Your task to perform on an android device: turn off data saver in the chrome app Image 0: 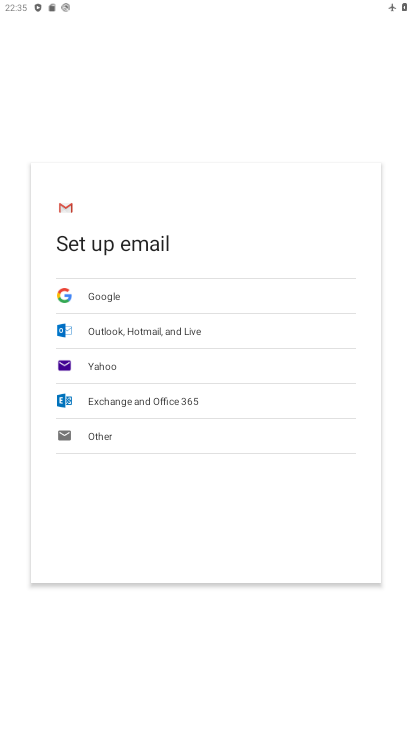
Step 0: press home button
Your task to perform on an android device: turn off data saver in the chrome app Image 1: 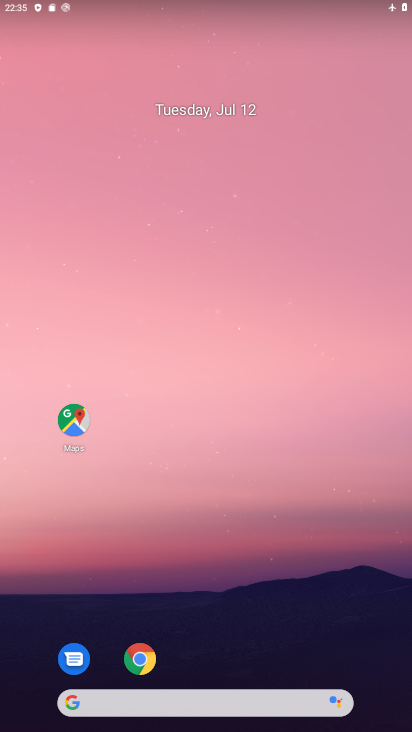
Step 1: drag from (330, 542) to (320, 86)
Your task to perform on an android device: turn off data saver in the chrome app Image 2: 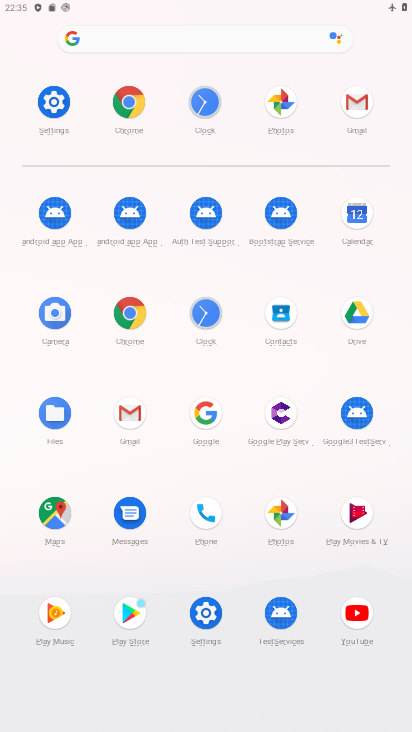
Step 2: click (120, 99)
Your task to perform on an android device: turn off data saver in the chrome app Image 3: 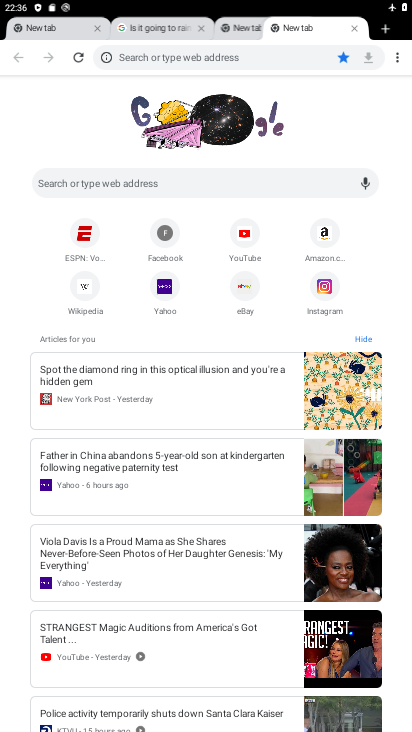
Step 3: click (408, 50)
Your task to perform on an android device: turn off data saver in the chrome app Image 4: 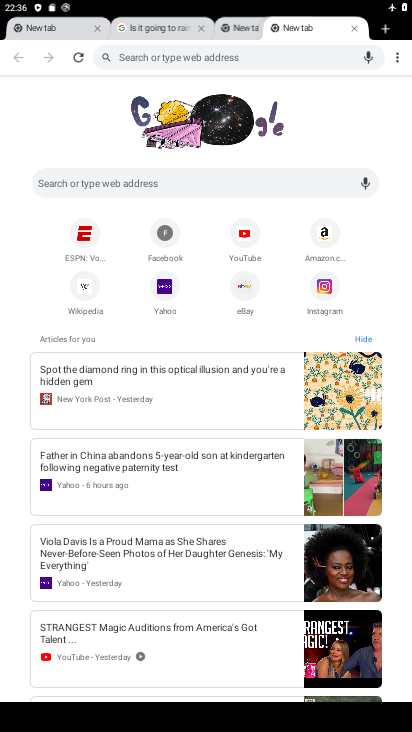
Step 4: click (394, 58)
Your task to perform on an android device: turn off data saver in the chrome app Image 5: 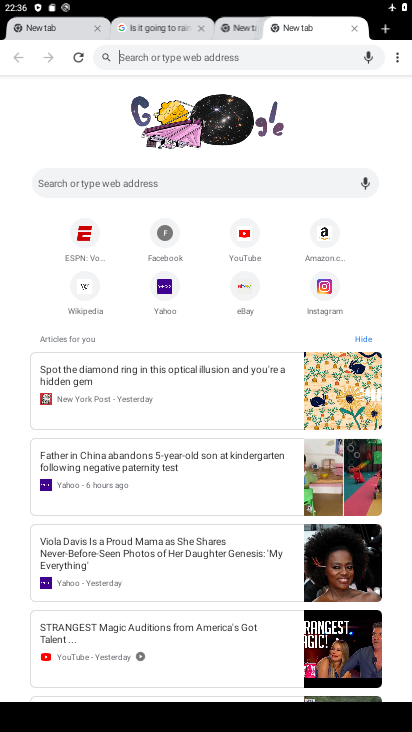
Step 5: click (399, 51)
Your task to perform on an android device: turn off data saver in the chrome app Image 6: 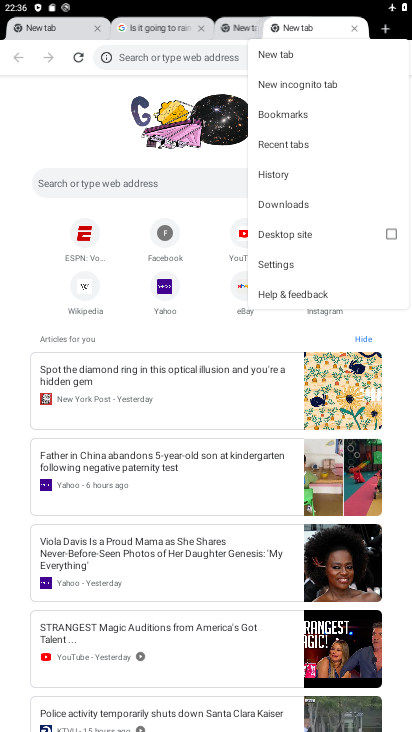
Step 6: click (286, 267)
Your task to perform on an android device: turn off data saver in the chrome app Image 7: 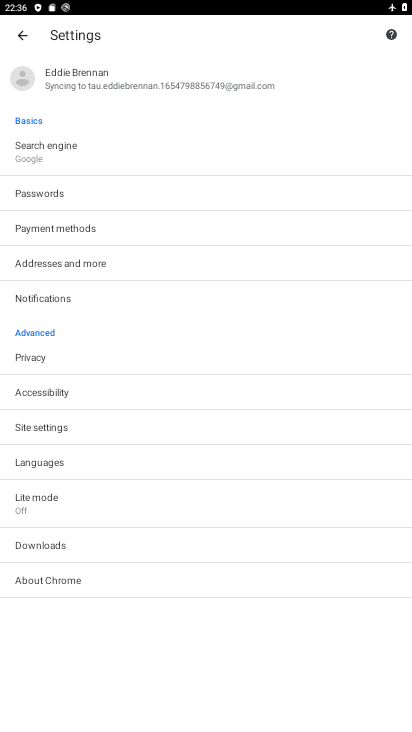
Step 7: click (64, 501)
Your task to perform on an android device: turn off data saver in the chrome app Image 8: 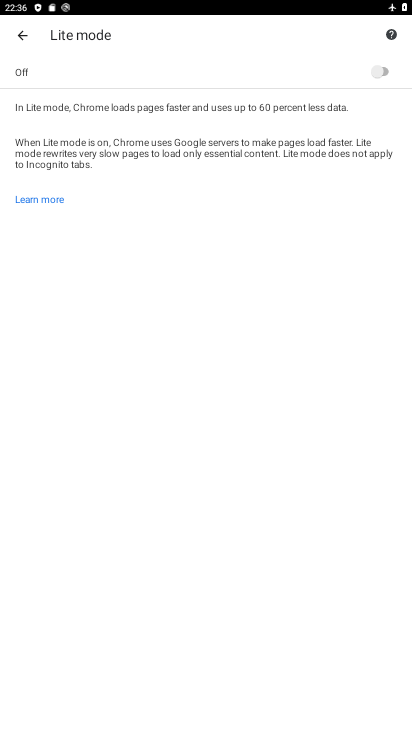
Step 8: task complete